Your task to perform on an android device: Open maps Image 0: 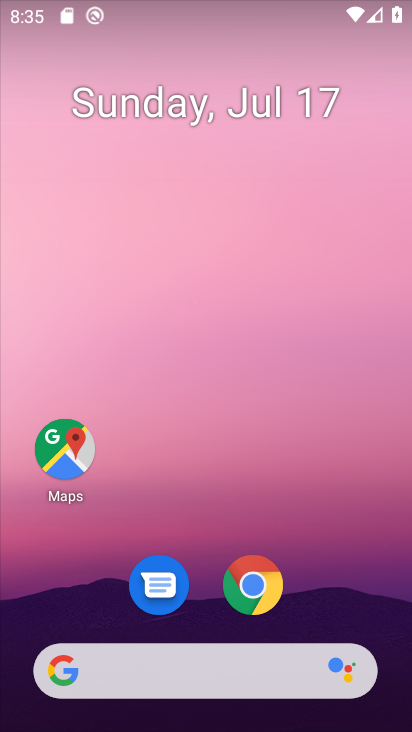
Step 0: click (65, 442)
Your task to perform on an android device: Open maps Image 1: 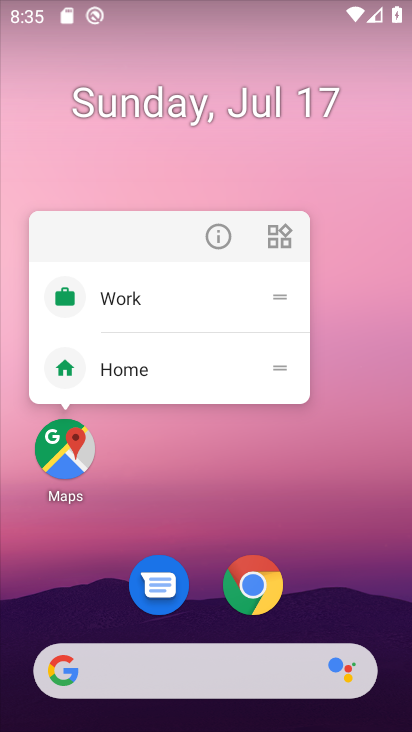
Step 1: click (65, 442)
Your task to perform on an android device: Open maps Image 2: 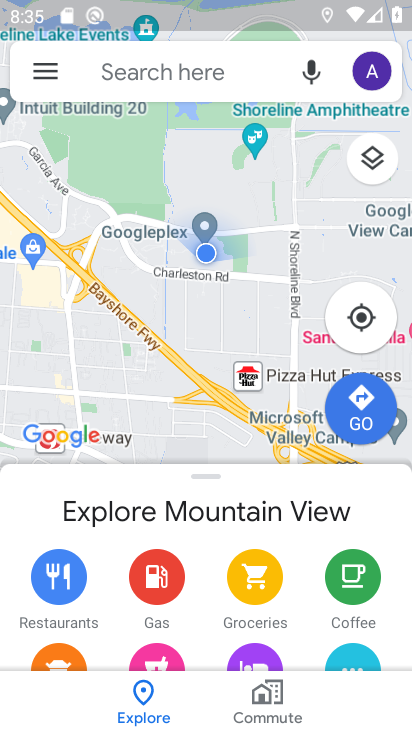
Step 2: task complete